Your task to perform on an android device: Check the settings for the Pandora app Image 0: 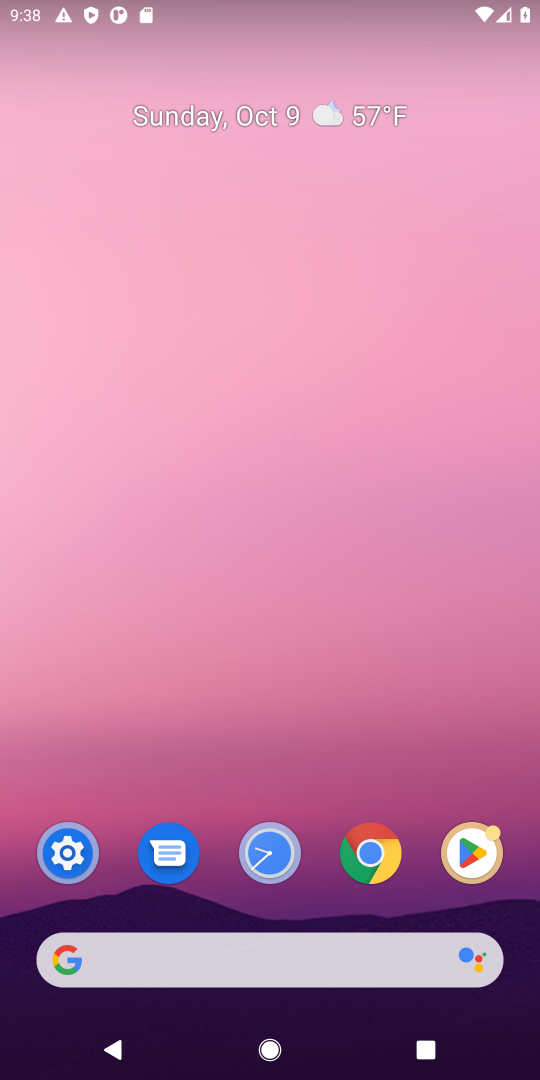
Step 0: click (492, 854)
Your task to perform on an android device: Check the settings for the Pandora app Image 1: 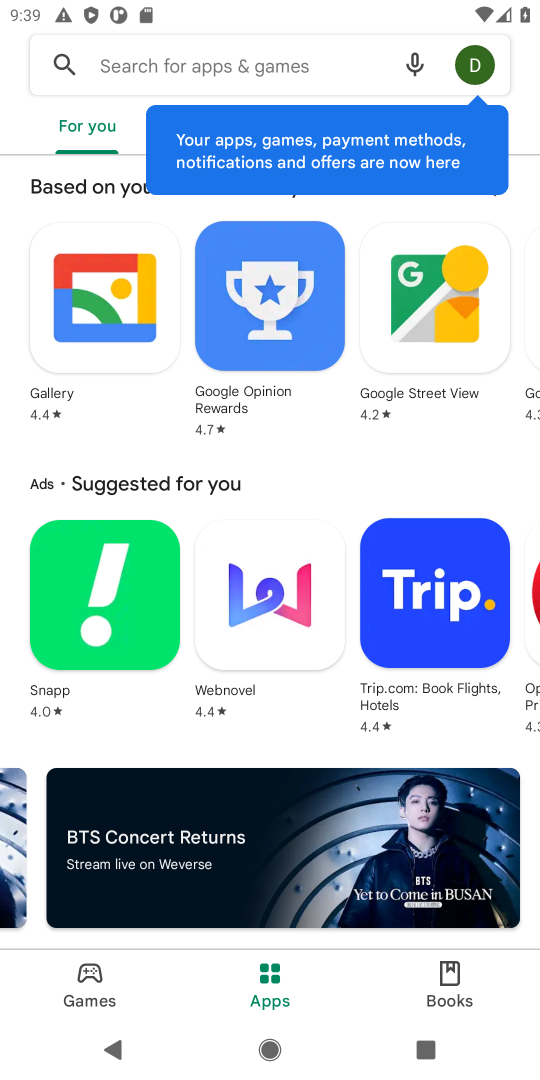
Step 1: click (227, 82)
Your task to perform on an android device: Check the settings for the Pandora app Image 2: 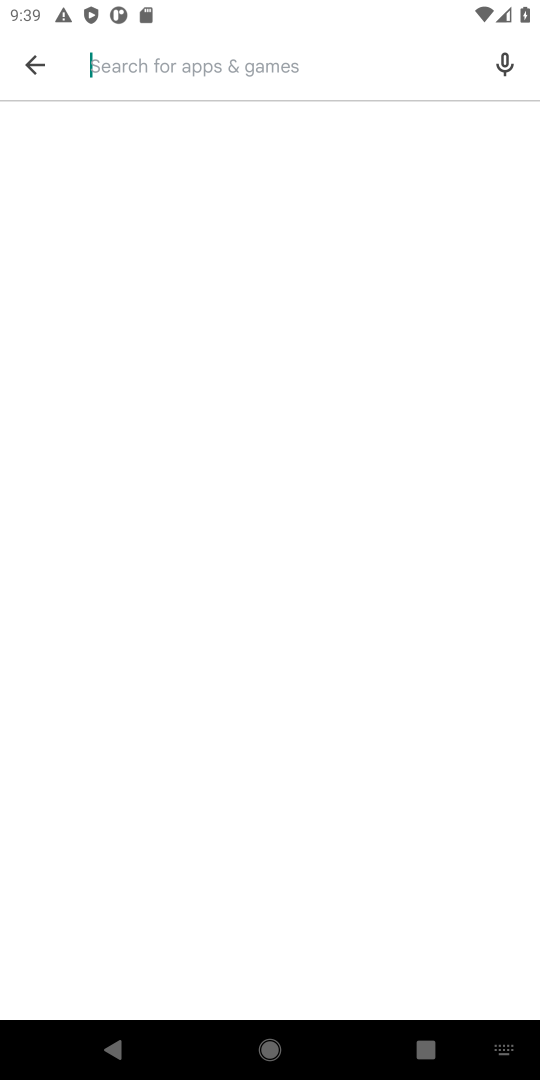
Step 2: type "pandora"
Your task to perform on an android device: Check the settings for the Pandora app Image 3: 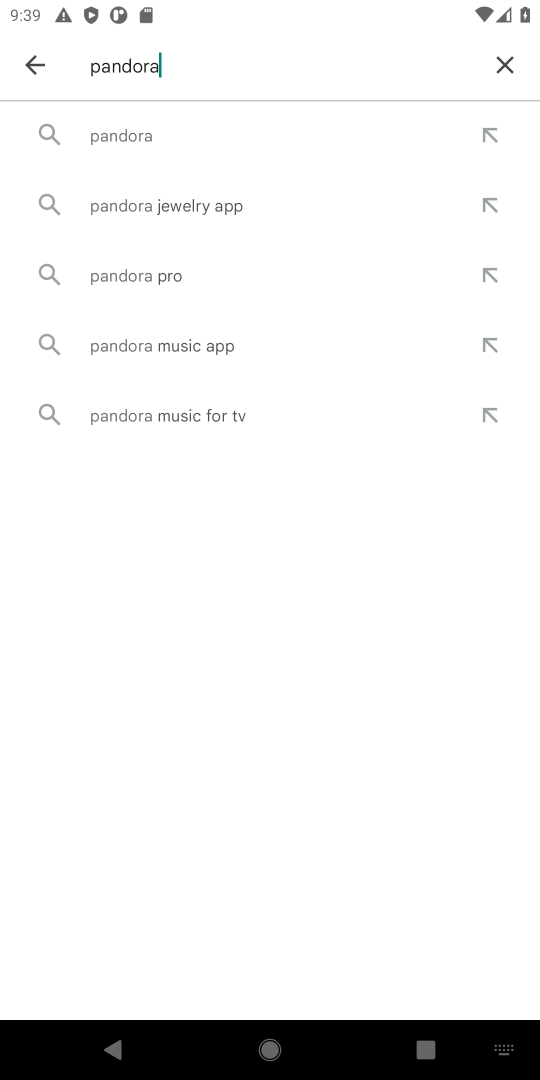
Step 3: type ""
Your task to perform on an android device: Check the settings for the Pandora app Image 4: 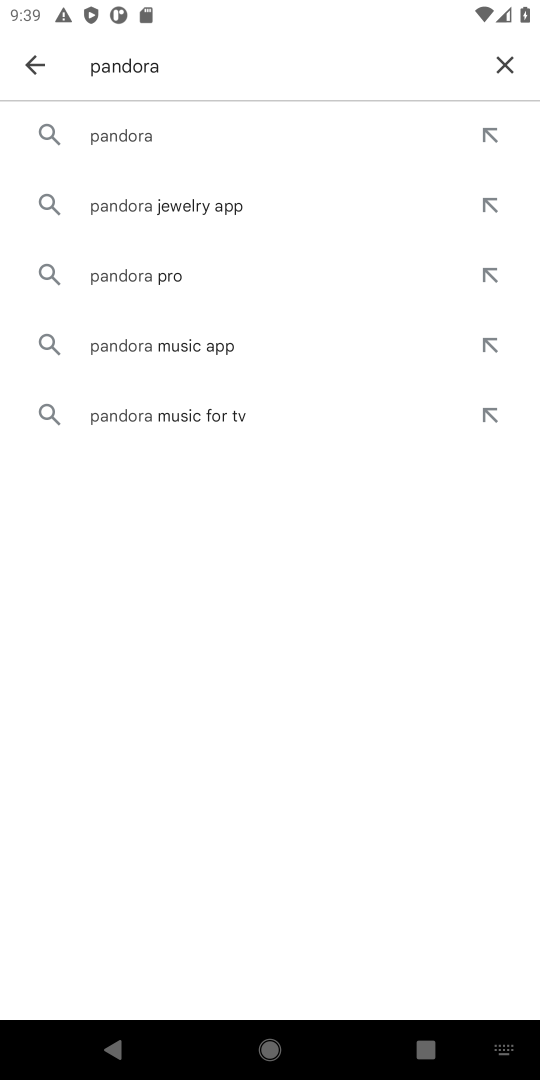
Step 4: click (255, 262)
Your task to perform on an android device: Check the settings for the Pandora app Image 5: 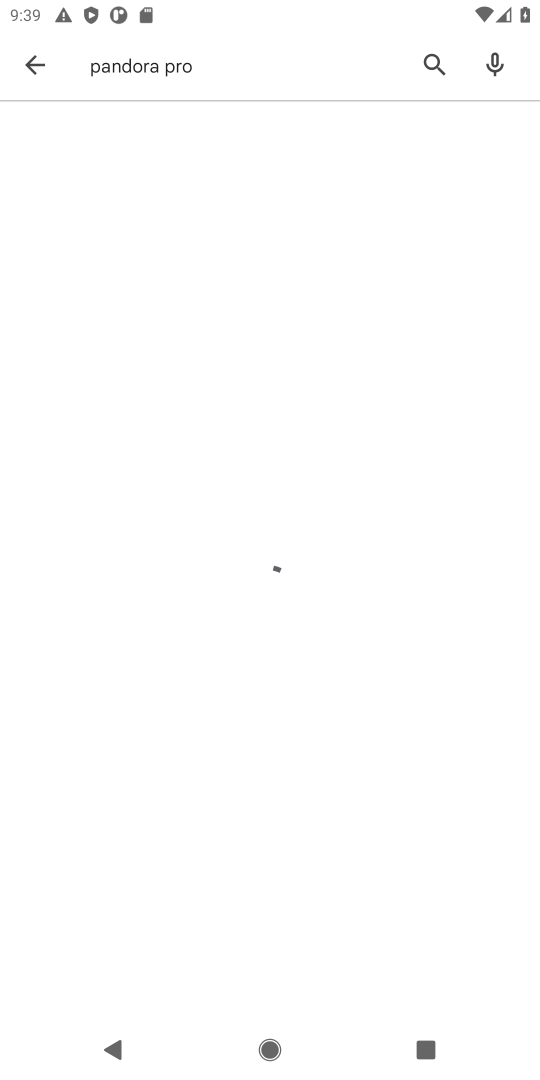
Step 5: click (224, 132)
Your task to perform on an android device: Check the settings for the Pandora app Image 6: 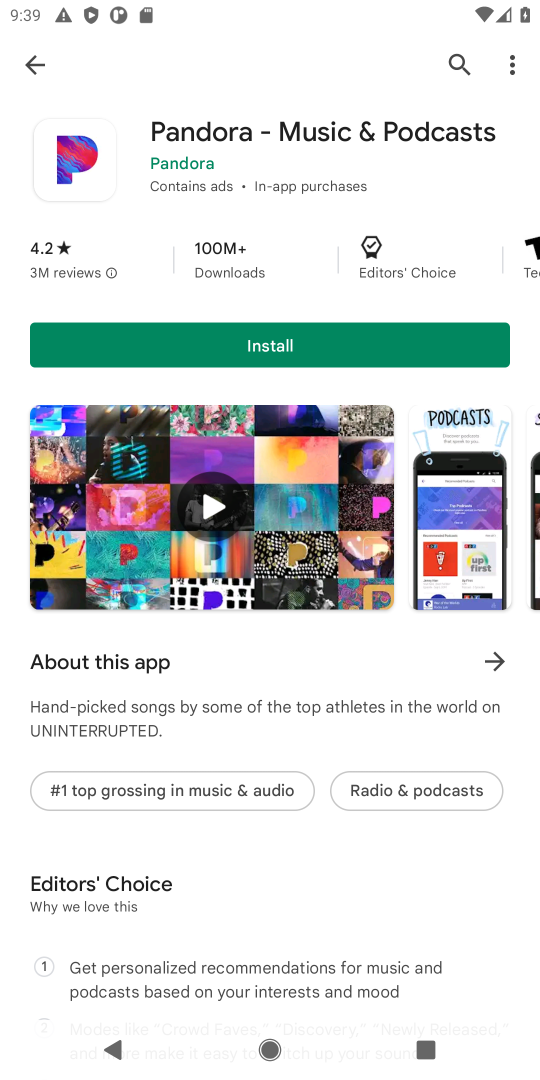
Step 6: click (220, 347)
Your task to perform on an android device: Check the settings for the Pandora app Image 7: 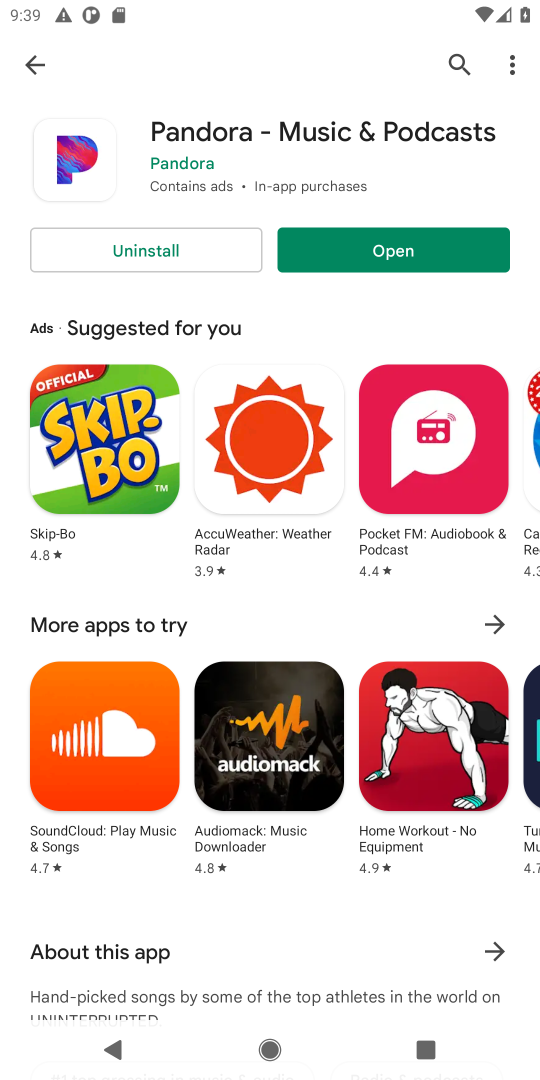
Step 7: click (308, 237)
Your task to perform on an android device: Check the settings for the Pandora app Image 8: 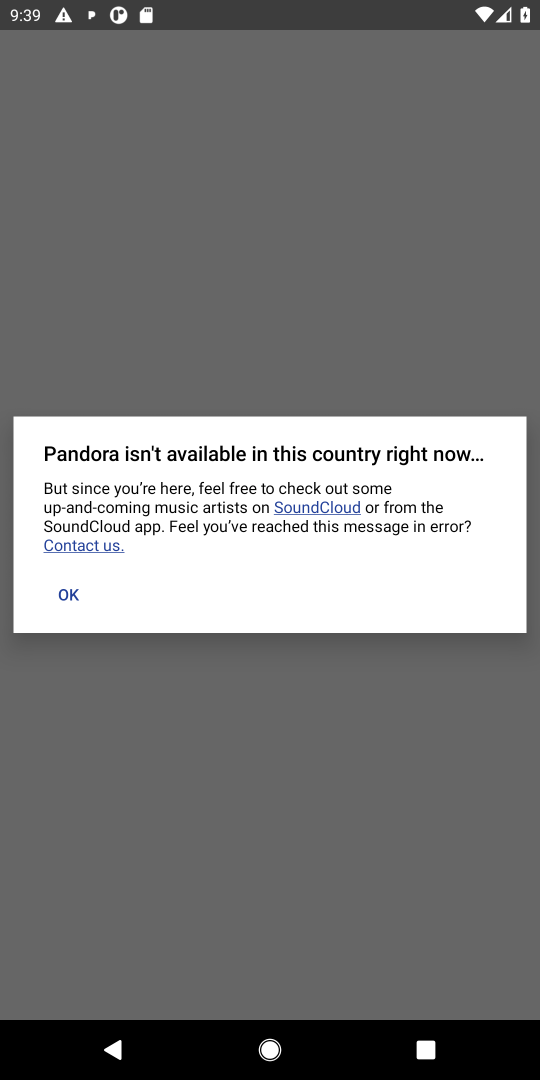
Step 8: click (74, 585)
Your task to perform on an android device: Check the settings for the Pandora app Image 9: 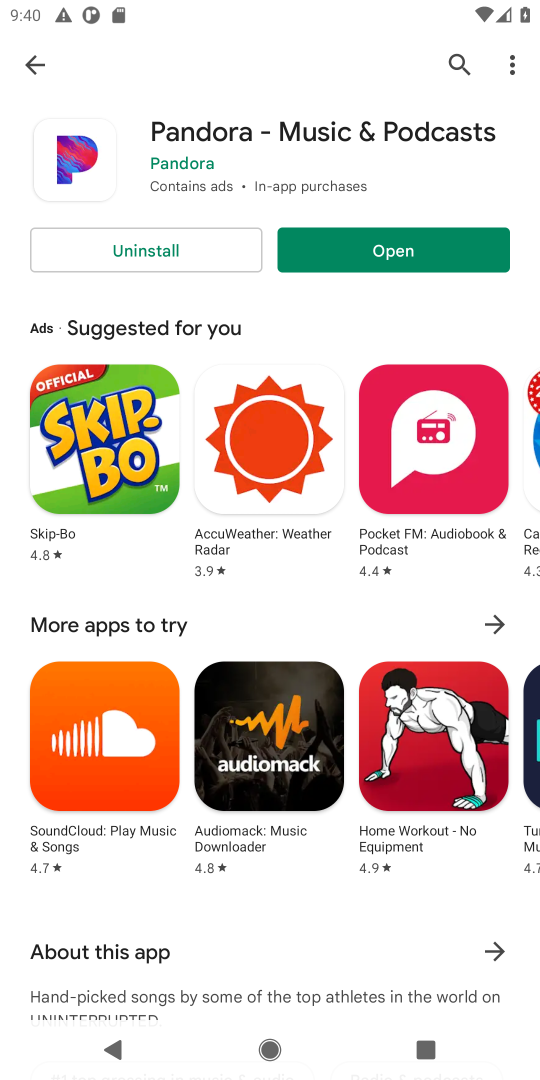
Step 9: click (335, 229)
Your task to perform on an android device: Check the settings for the Pandora app Image 10: 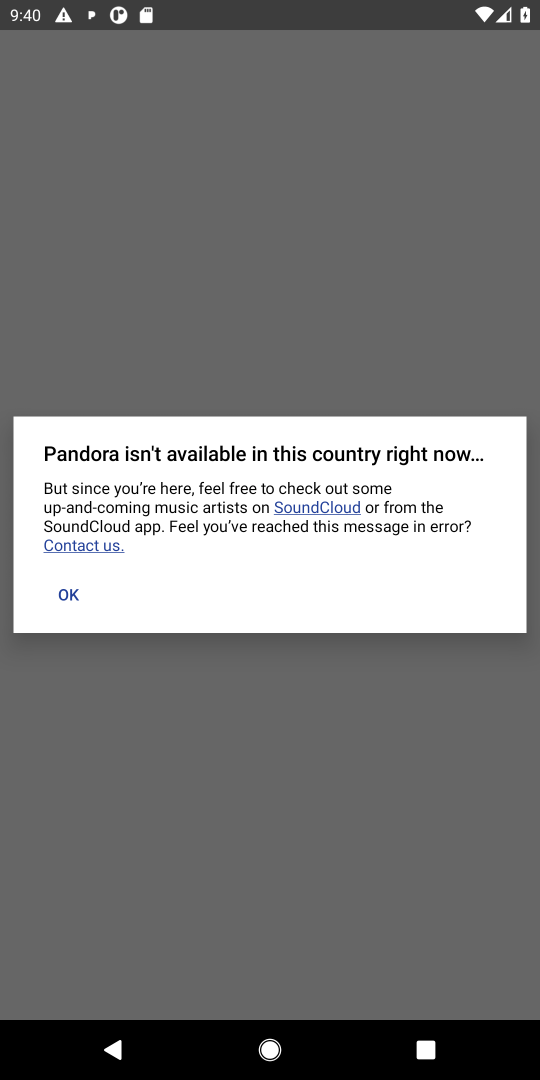
Step 10: click (73, 595)
Your task to perform on an android device: Check the settings for the Pandora app Image 11: 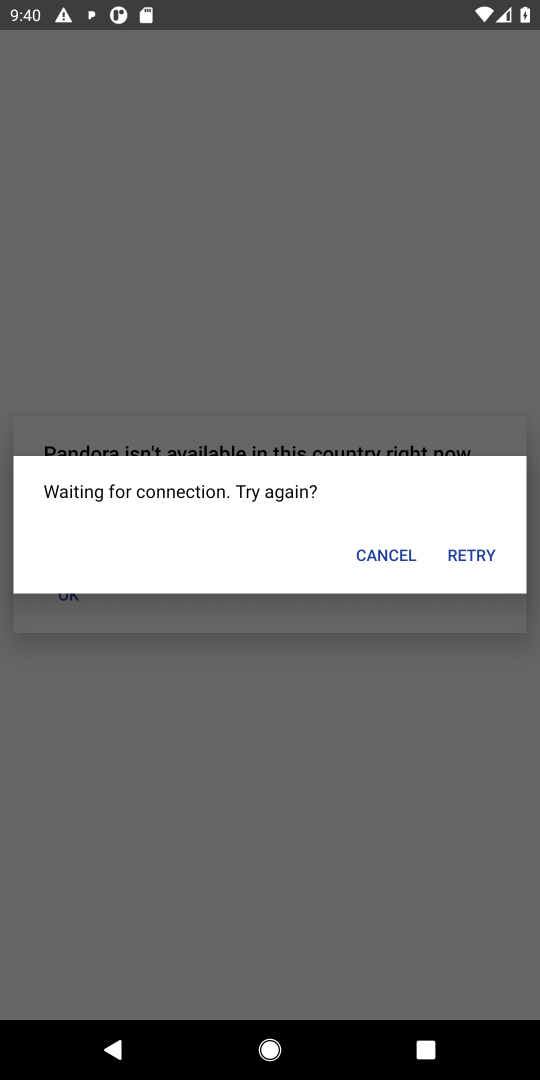
Step 11: click (460, 562)
Your task to perform on an android device: Check the settings for the Pandora app Image 12: 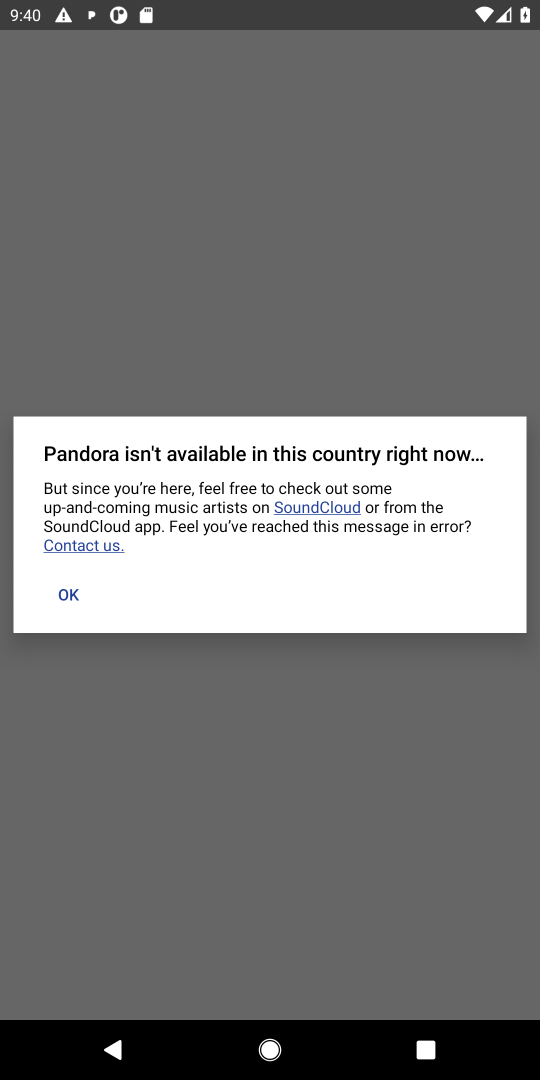
Step 12: click (60, 603)
Your task to perform on an android device: Check the settings for the Pandora app Image 13: 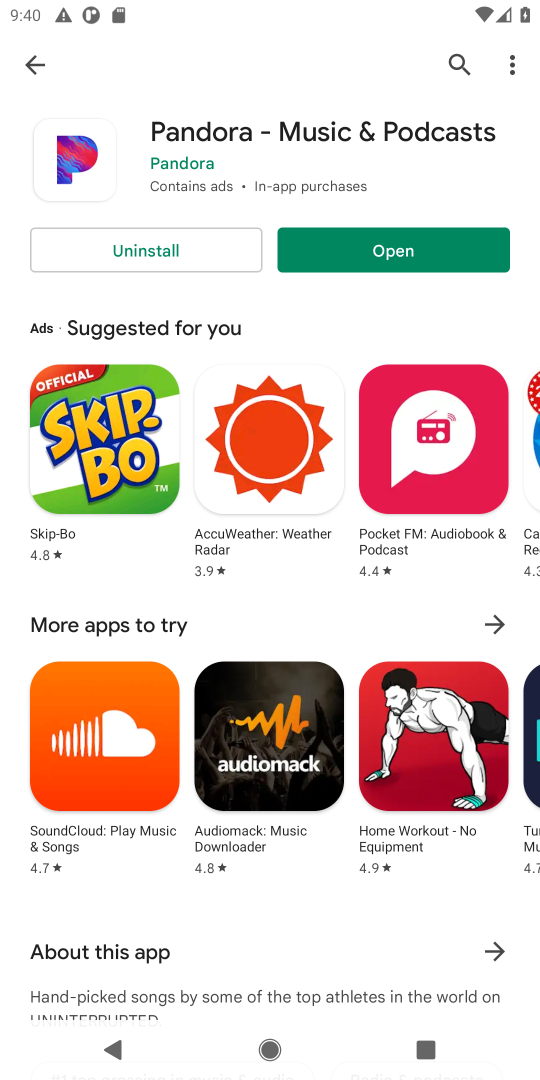
Step 13: task complete